Your task to perform on an android device: What's the weather today? Image 0: 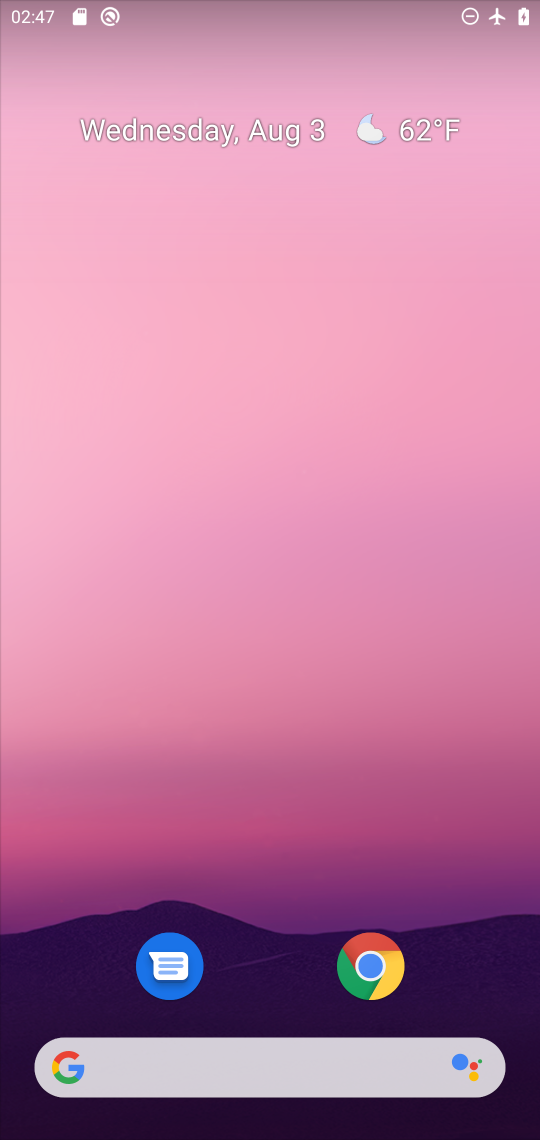
Step 0: drag from (239, 1001) to (302, 375)
Your task to perform on an android device: What's the weather today? Image 1: 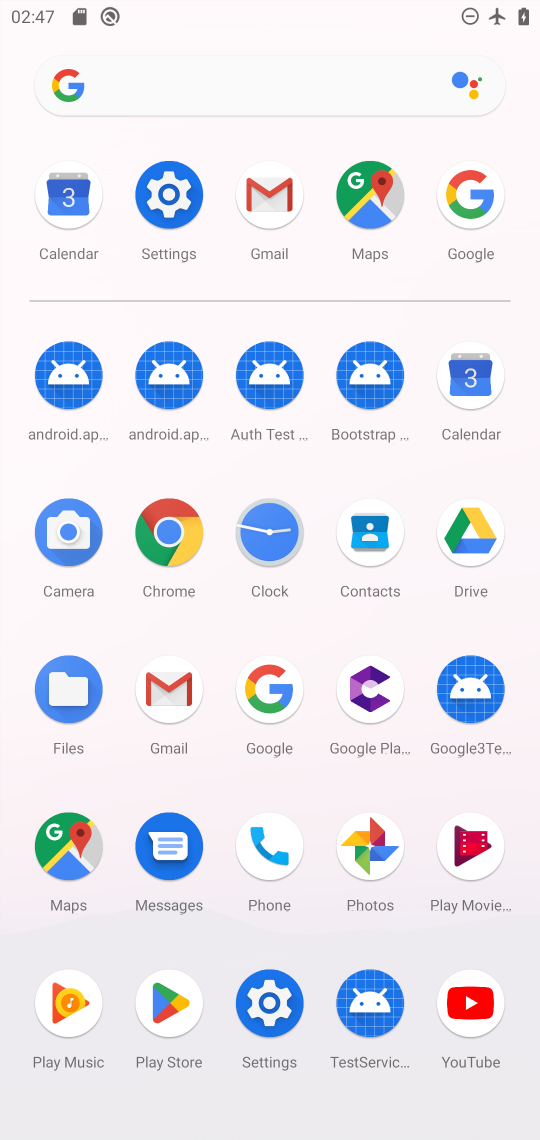
Step 1: click (455, 212)
Your task to perform on an android device: What's the weather today? Image 2: 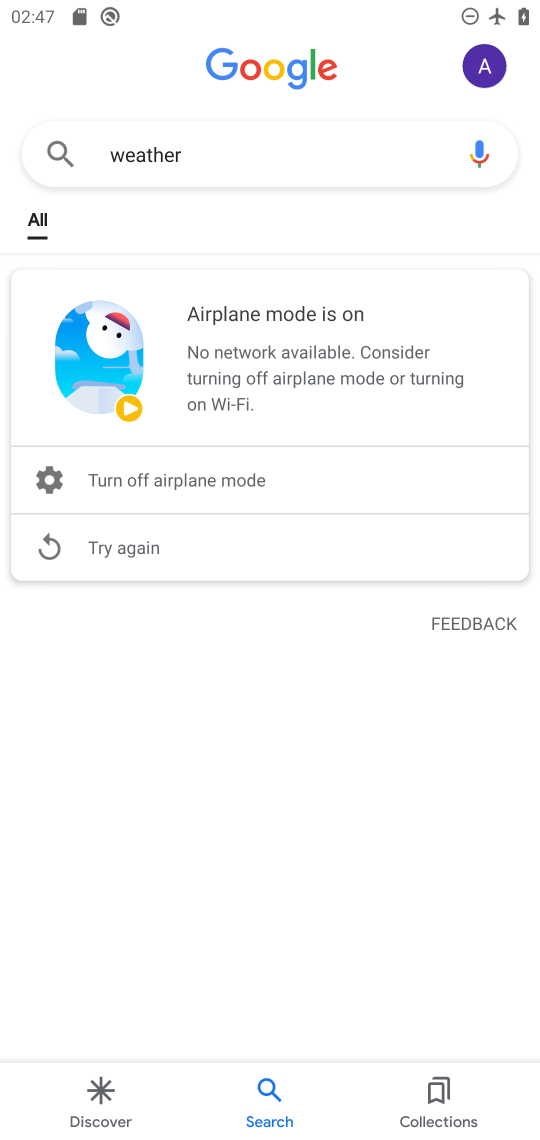
Step 2: task complete